Your task to perform on an android device: How do I get to the nearest Subway? Image 0: 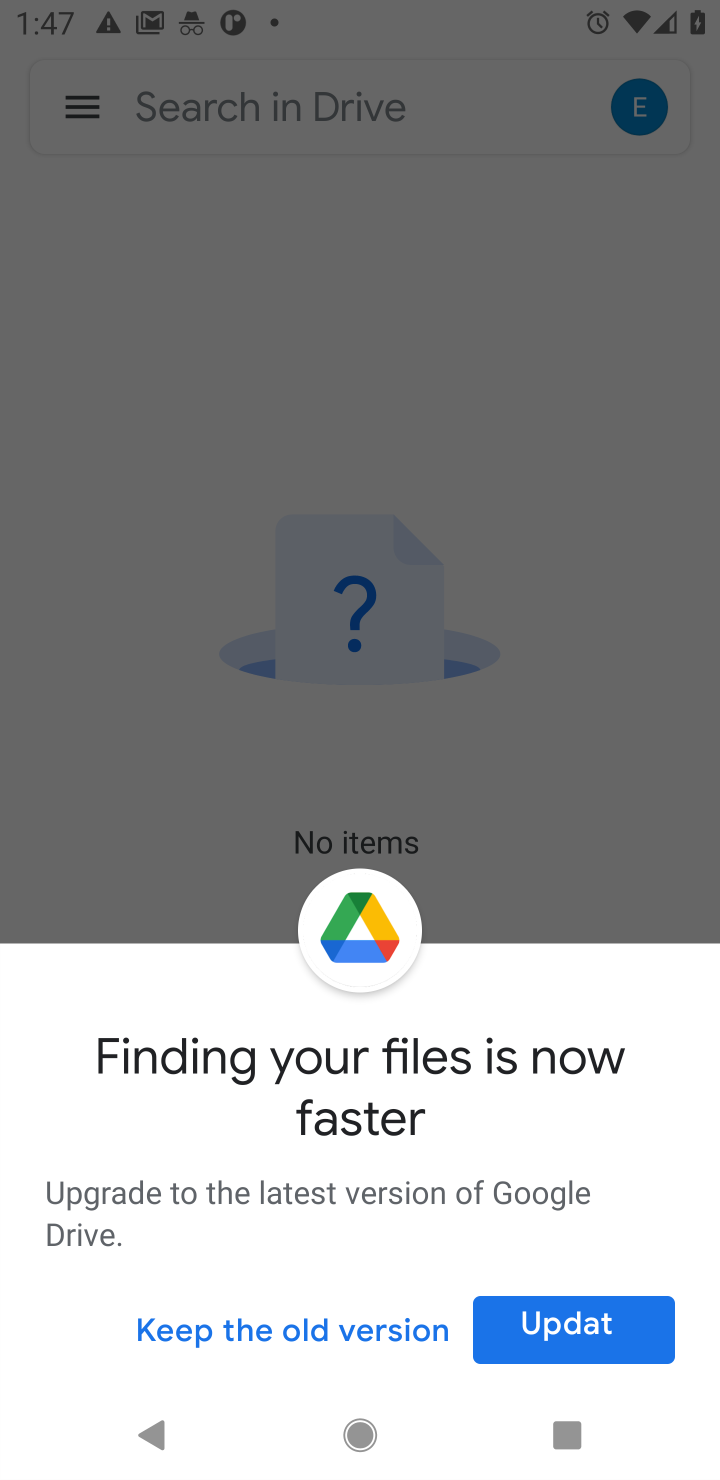
Step 0: press home button
Your task to perform on an android device: How do I get to the nearest Subway? Image 1: 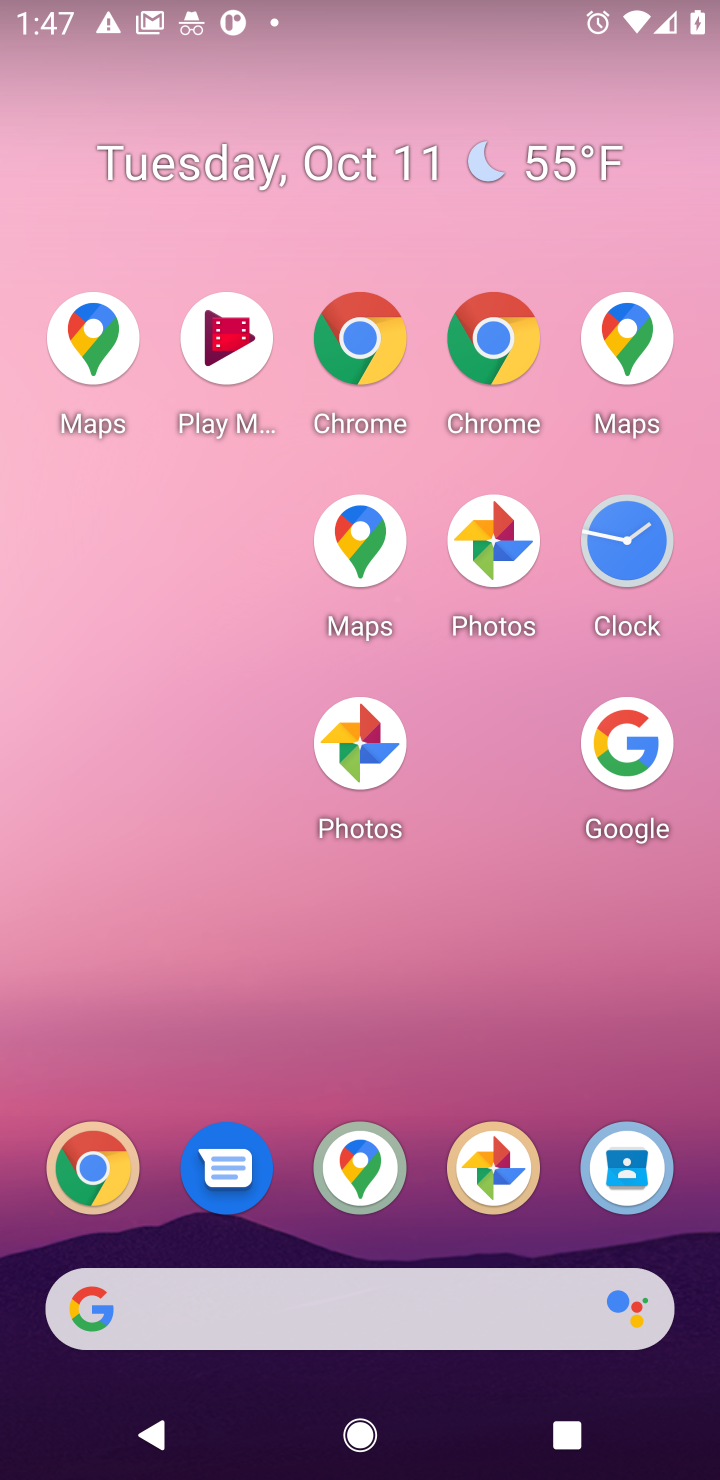
Step 1: click (637, 780)
Your task to perform on an android device: How do I get to the nearest Subway? Image 2: 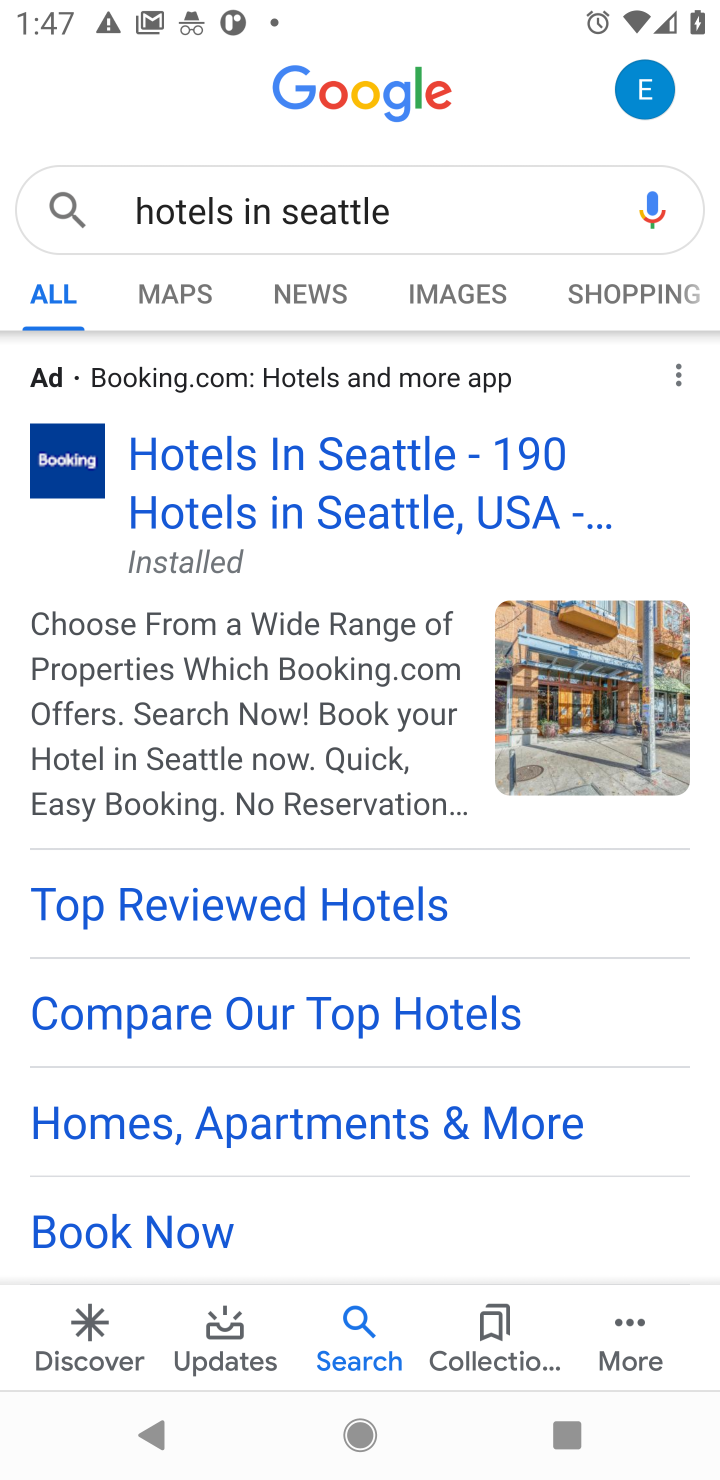
Step 2: click (492, 187)
Your task to perform on an android device: How do I get to the nearest Subway? Image 3: 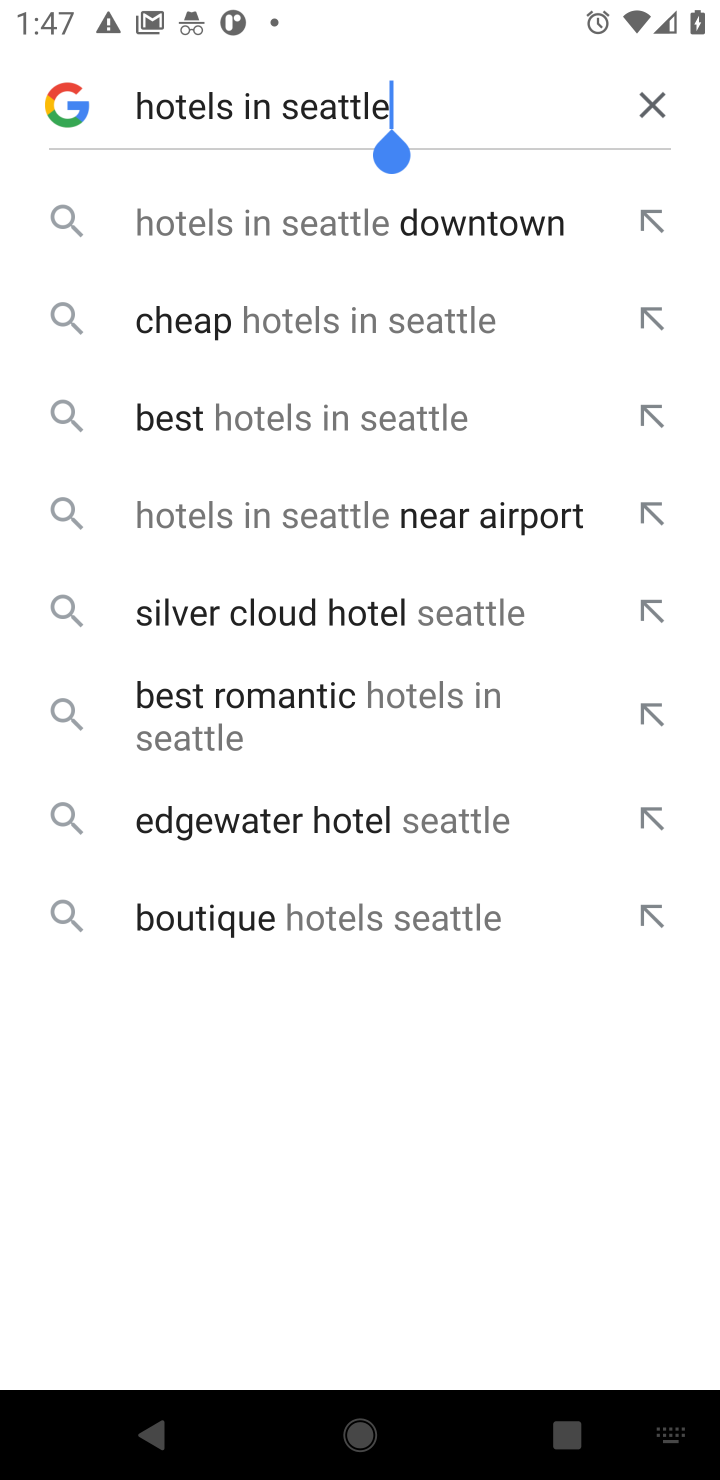
Step 3: click (642, 99)
Your task to perform on an android device: How do I get to the nearest Subway? Image 4: 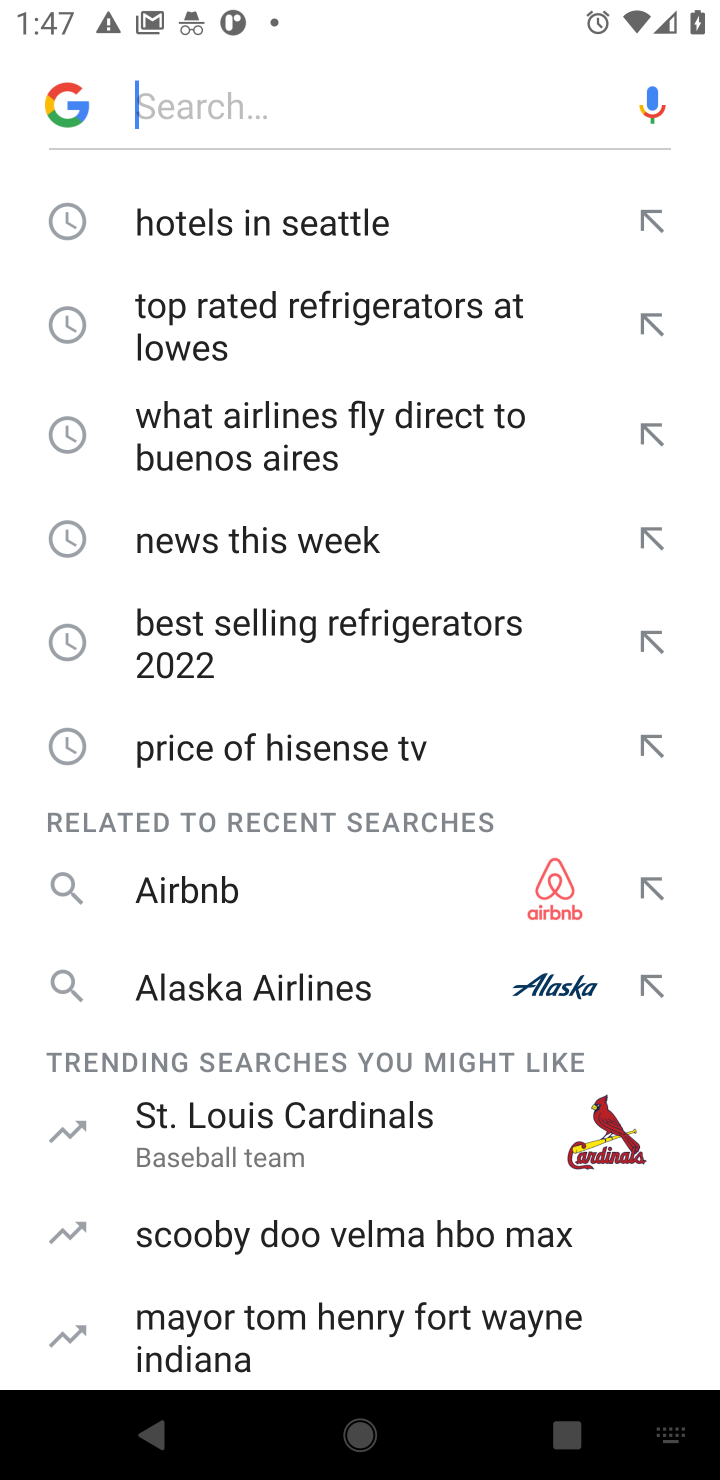
Step 4: type "nearest Subway"
Your task to perform on an android device: How do I get to the nearest Subway? Image 5: 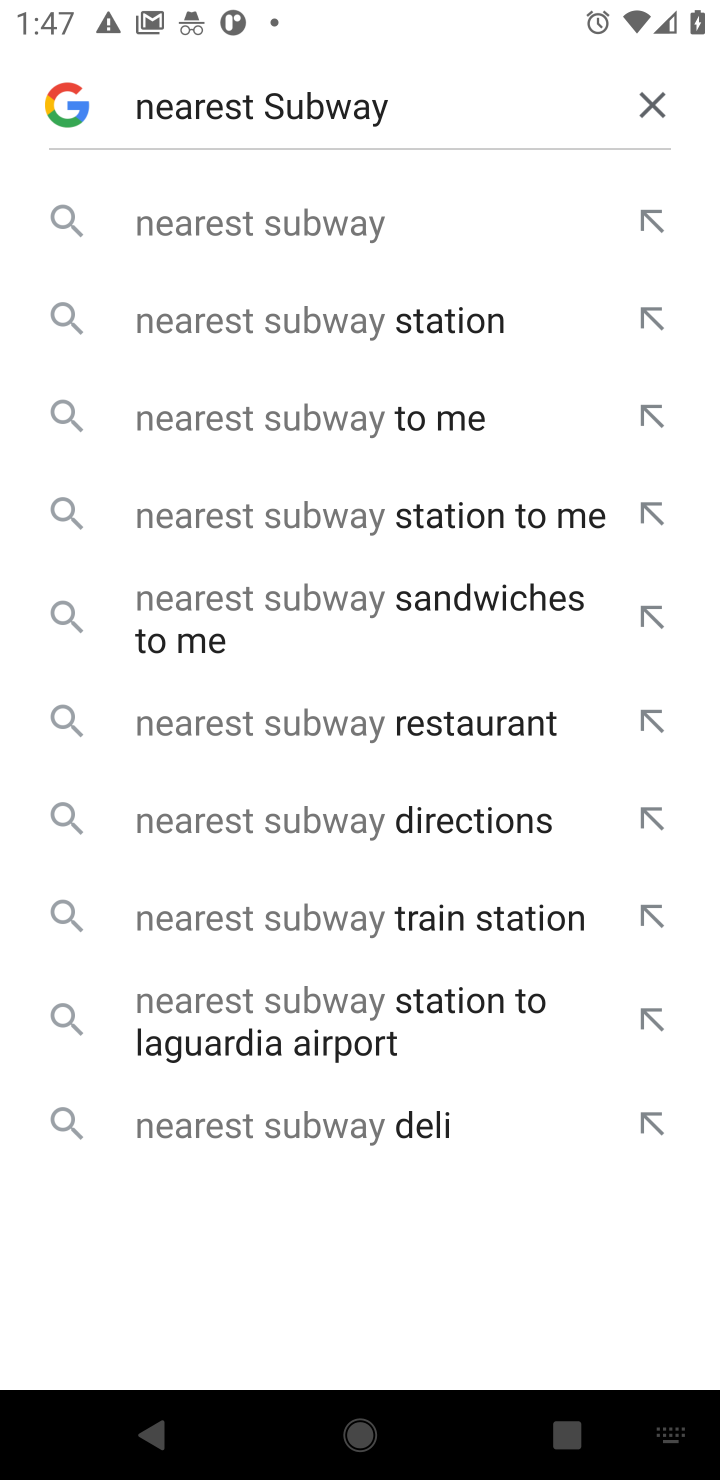
Step 5: click (461, 217)
Your task to perform on an android device: How do I get to the nearest Subway? Image 6: 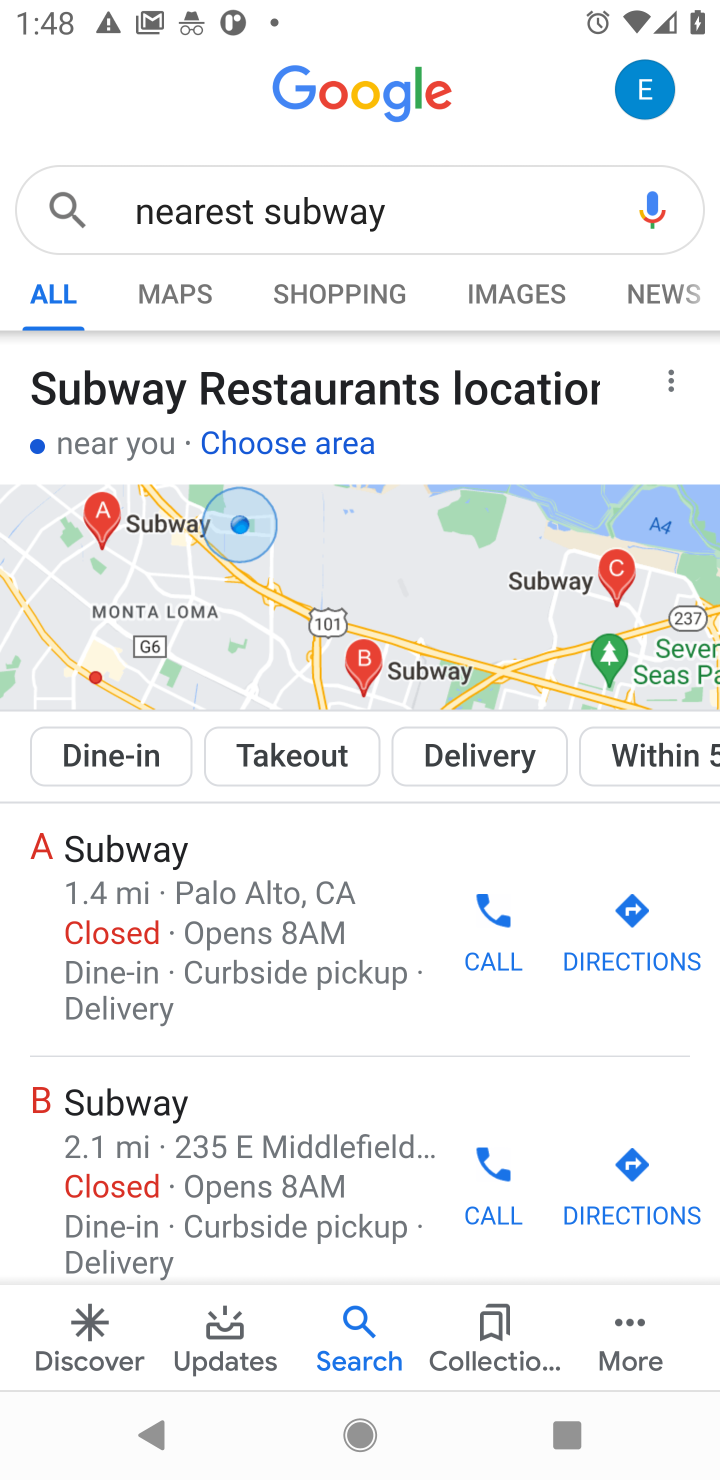
Step 6: click (633, 910)
Your task to perform on an android device: How do I get to the nearest Subway? Image 7: 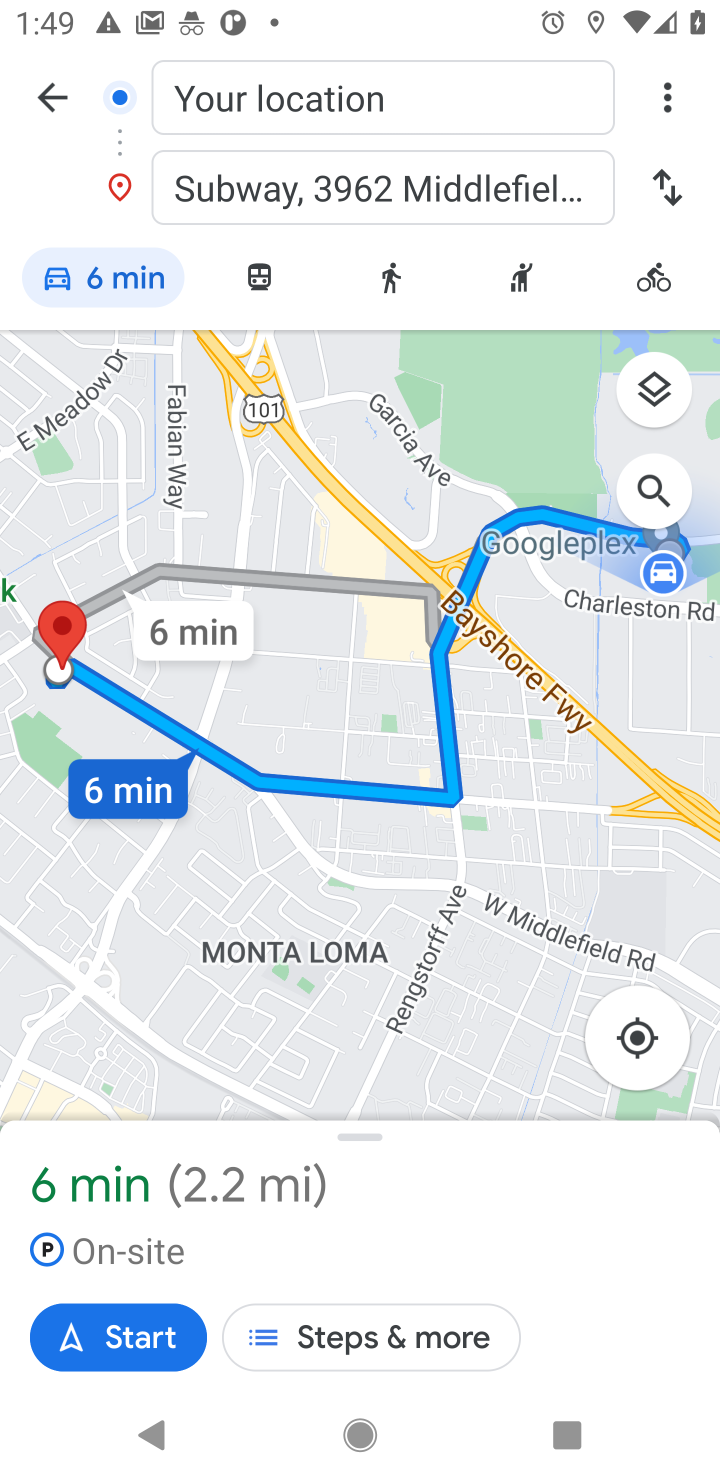
Step 7: task complete